Your task to perform on an android device: see creations saved in the google photos Image 0: 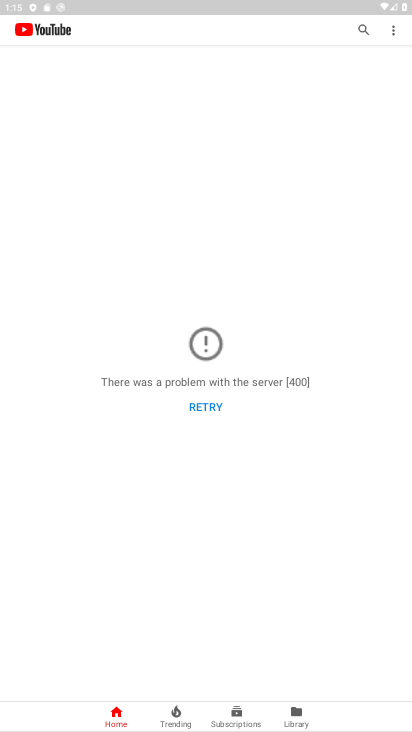
Step 0: press home button
Your task to perform on an android device: see creations saved in the google photos Image 1: 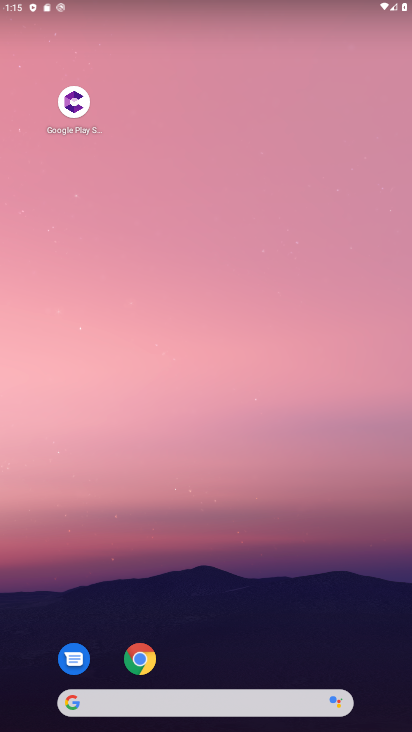
Step 1: drag from (297, 669) to (202, 67)
Your task to perform on an android device: see creations saved in the google photos Image 2: 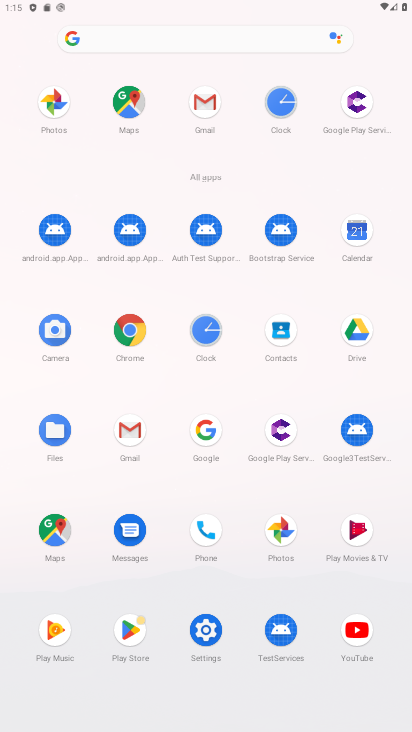
Step 2: click (53, 102)
Your task to perform on an android device: see creations saved in the google photos Image 3: 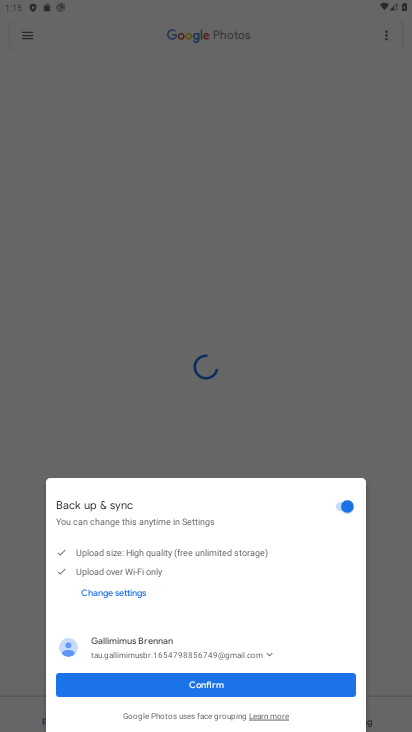
Step 3: click (216, 680)
Your task to perform on an android device: see creations saved in the google photos Image 4: 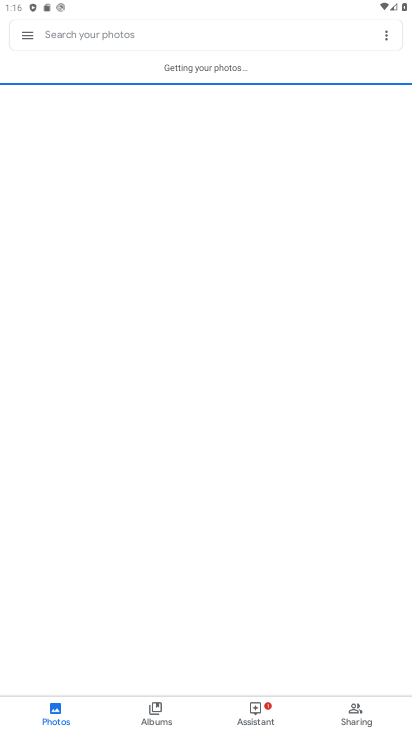
Step 4: click (130, 34)
Your task to perform on an android device: see creations saved in the google photos Image 5: 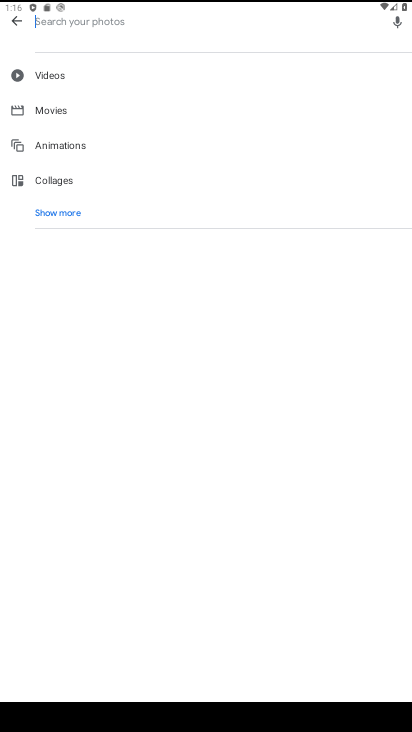
Step 5: click (57, 208)
Your task to perform on an android device: see creations saved in the google photos Image 6: 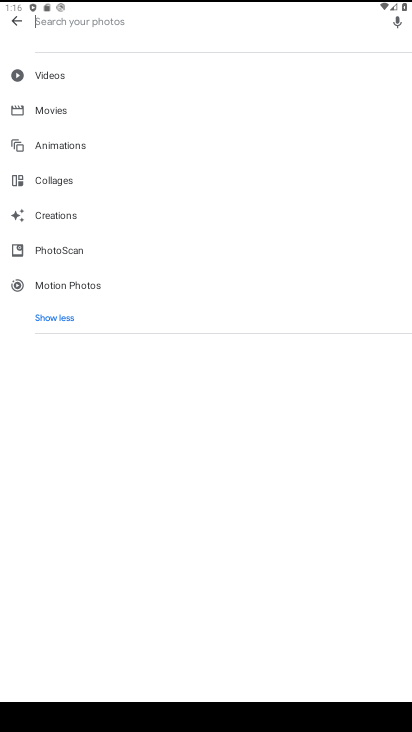
Step 6: click (57, 208)
Your task to perform on an android device: see creations saved in the google photos Image 7: 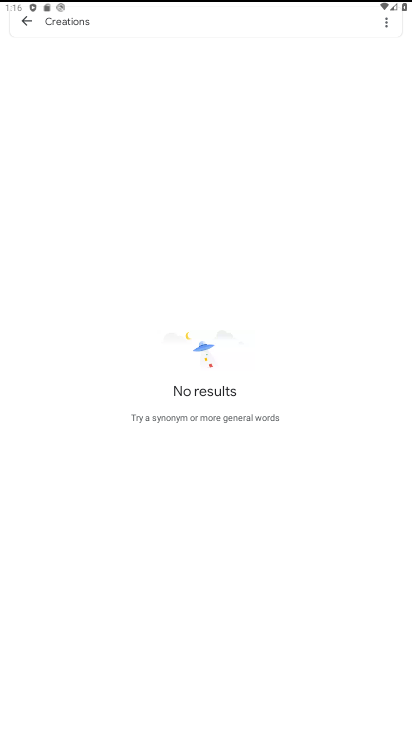
Step 7: click (100, 215)
Your task to perform on an android device: see creations saved in the google photos Image 8: 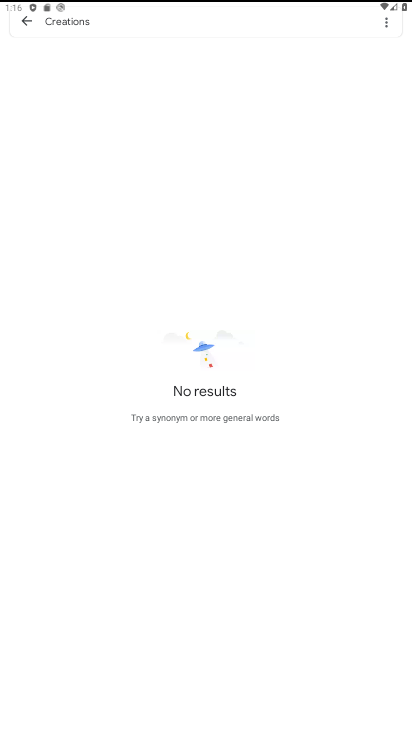
Step 8: task complete